Your task to perform on an android device: Open settings on Google Maps Image 0: 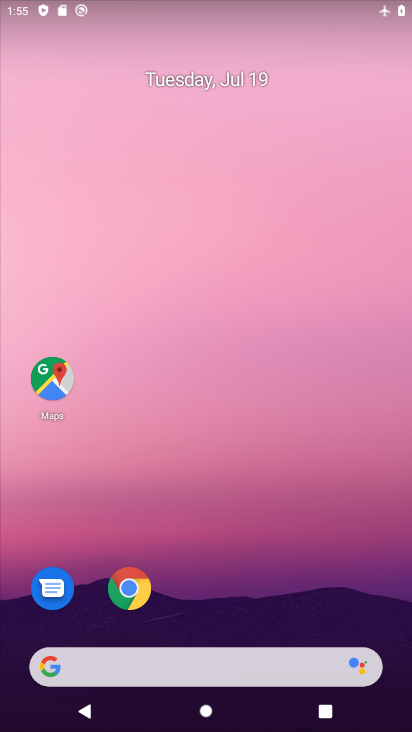
Step 0: drag from (238, 630) to (317, 3)
Your task to perform on an android device: Open settings on Google Maps Image 1: 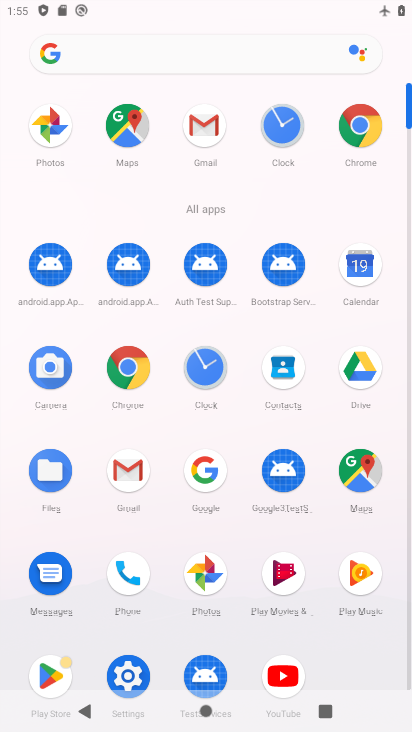
Step 1: click (125, 129)
Your task to perform on an android device: Open settings on Google Maps Image 2: 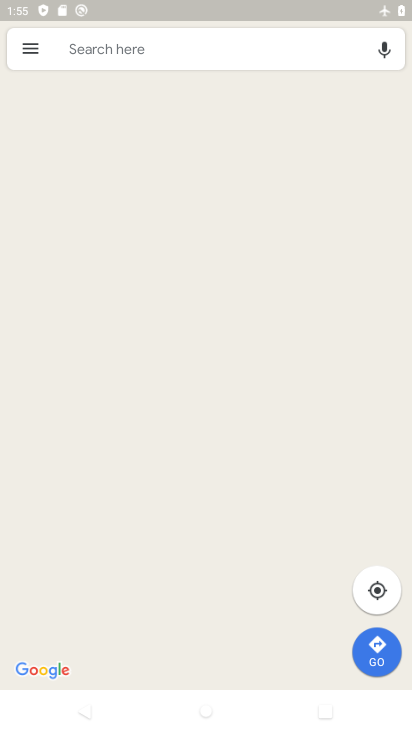
Step 2: click (25, 46)
Your task to perform on an android device: Open settings on Google Maps Image 3: 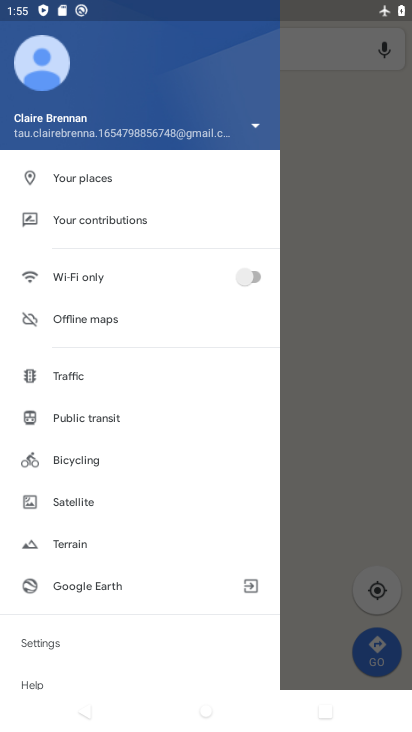
Step 3: drag from (175, 597) to (196, 175)
Your task to perform on an android device: Open settings on Google Maps Image 4: 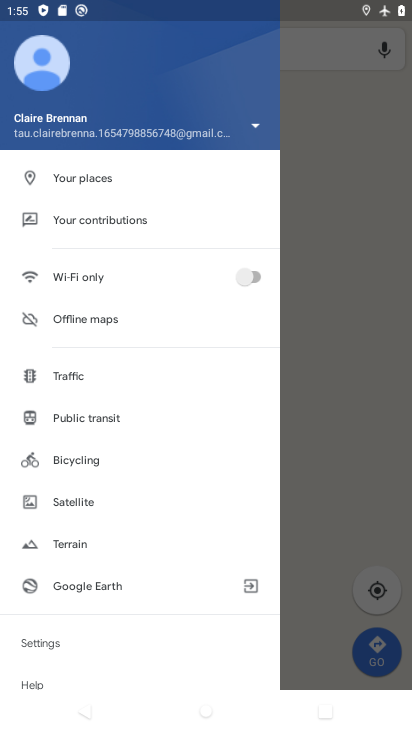
Step 4: click (40, 640)
Your task to perform on an android device: Open settings on Google Maps Image 5: 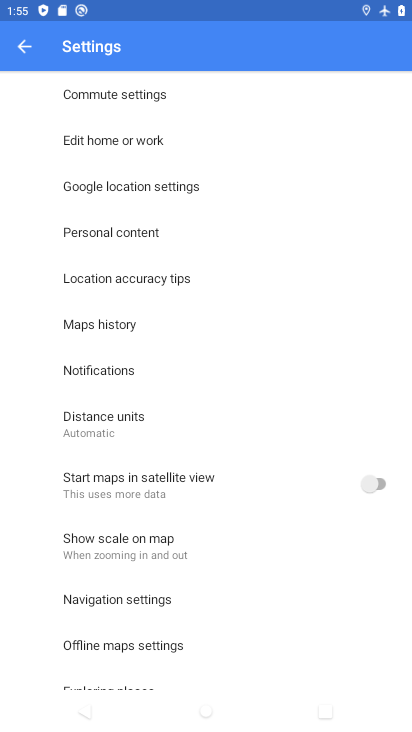
Step 5: task complete